Your task to perform on an android device: Go to Amazon Image 0: 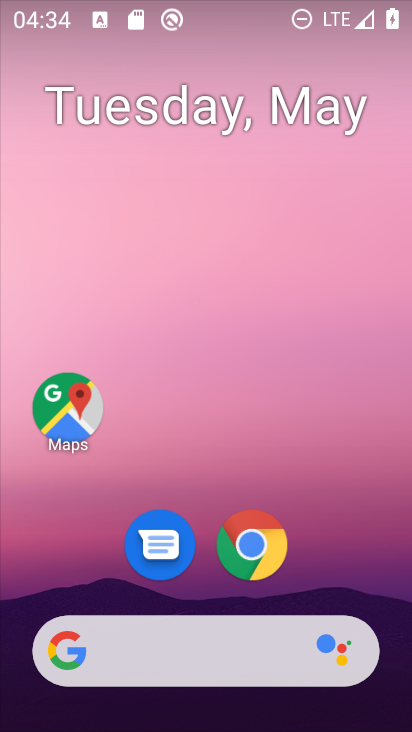
Step 0: click (252, 548)
Your task to perform on an android device: Go to Amazon Image 1: 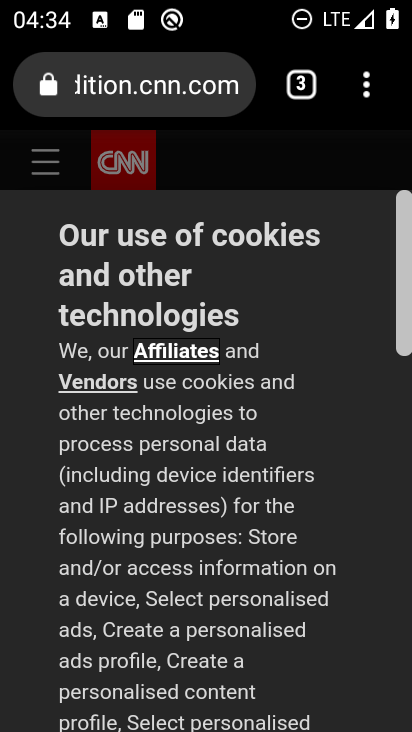
Step 1: click (135, 84)
Your task to perform on an android device: Go to Amazon Image 2: 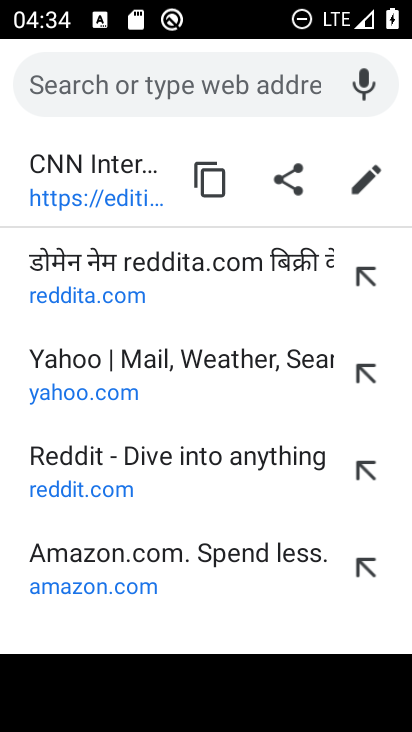
Step 2: type "amazon"
Your task to perform on an android device: Go to Amazon Image 3: 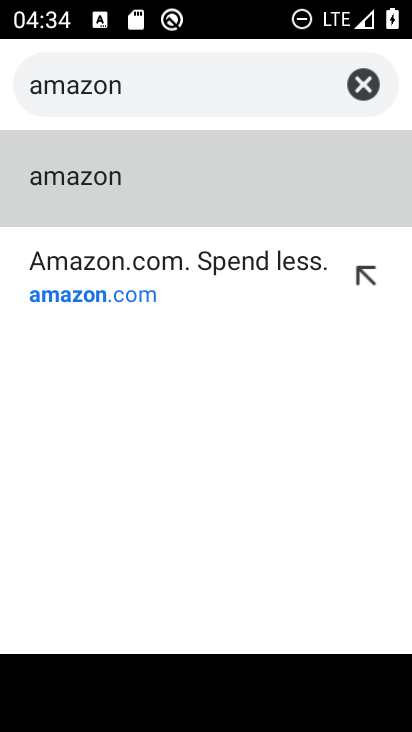
Step 3: click (80, 185)
Your task to perform on an android device: Go to Amazon Image 4: 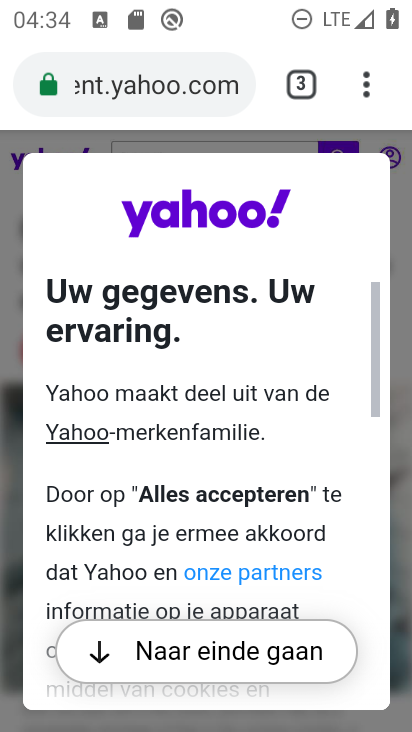
Step 4: click (93, 655)
Your task to perform on an android device: Go to Amazon Image 5: 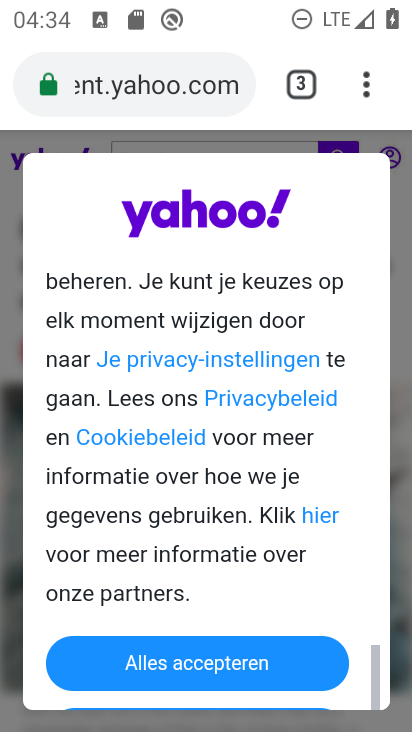
Step 5: click (224, 665)
Your task to perform on an android device: Go to Amazon Image 6: 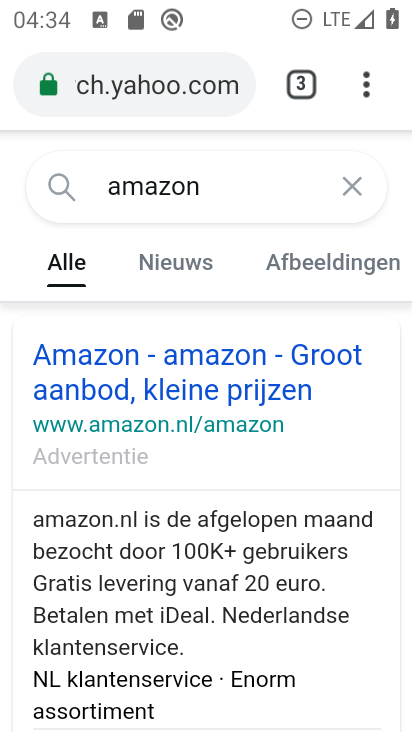
Step 6: click (125, 371)
Your task to perform on an android device: Go to Amazon Image 7: 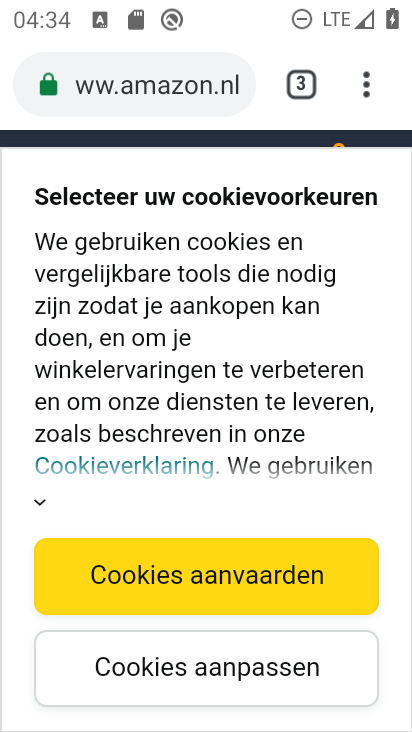
Step 7: task complete